Your task to perform on an android device: Open CNN.com Image 0: 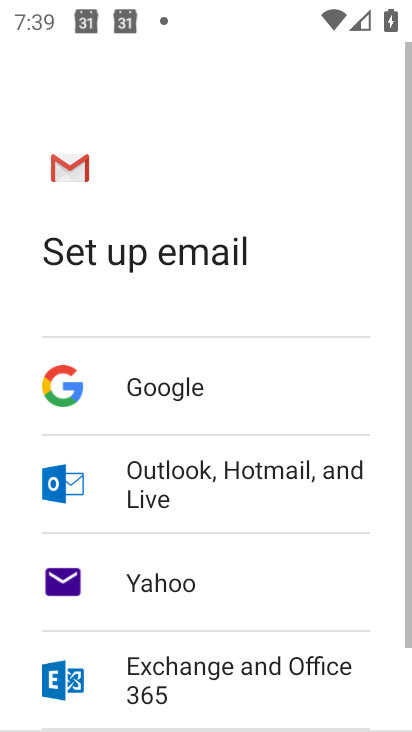
Step 0: press home button
Your task to perform on an android device: Open CNN.com Image 1: 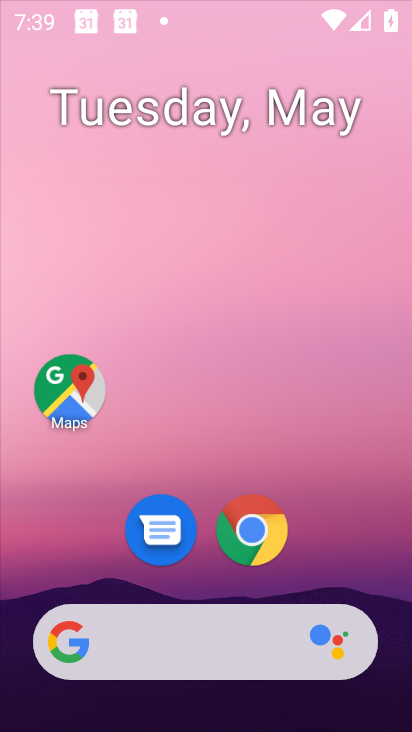
Step 1: click (242, 535)
Your task to perform on an android device: Open CNN.com Image 2: 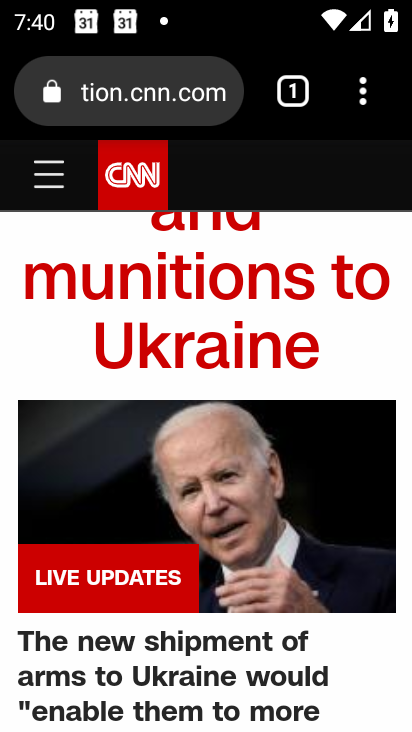
Step 2: task complete